Your task to perform on an android device: Open calendar and show me the fourth week of next month Image 0: 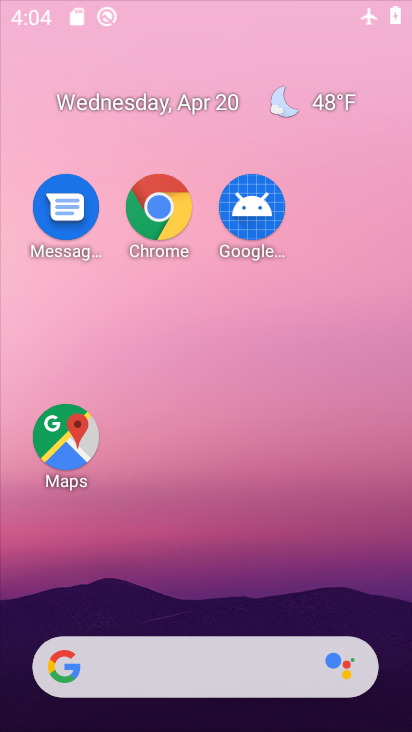
Step 0: drag from (240, 714) to (252, 340)
Your task to perform on an android device: Open calendar and show me the fourth week of next month Image 1: 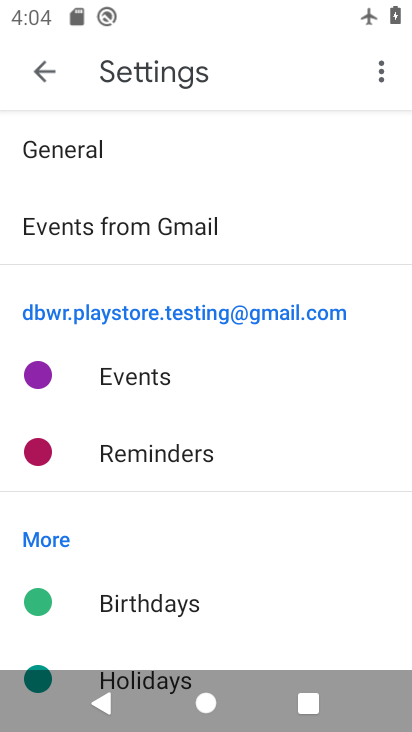
Step 1: press home button
Your task to perform on an android device: Open calendar and show me the fourth week of next month Image 2: 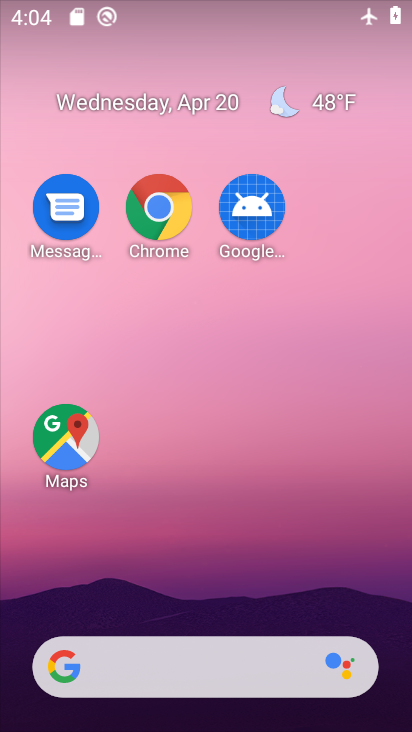
Step 2: drag from (269, 566) to (304, 178)
Your task to perform on an android device: Open calendar and show me the fourth week of next month Image 3: 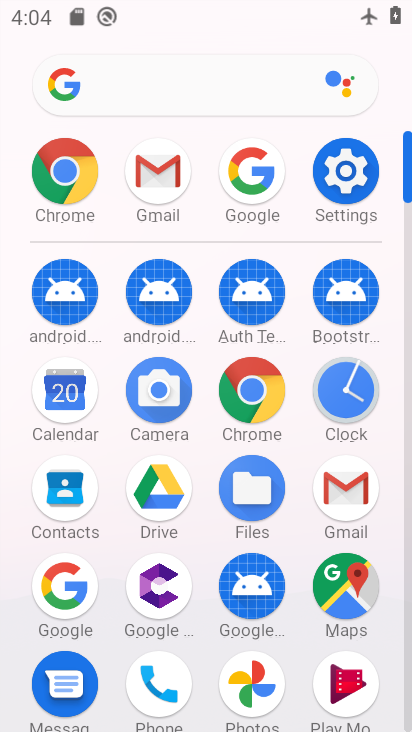
Step 3: click (86, 396)
Your task to perform on an android device: Open calendar and show me the fourth week of next month Image 4: 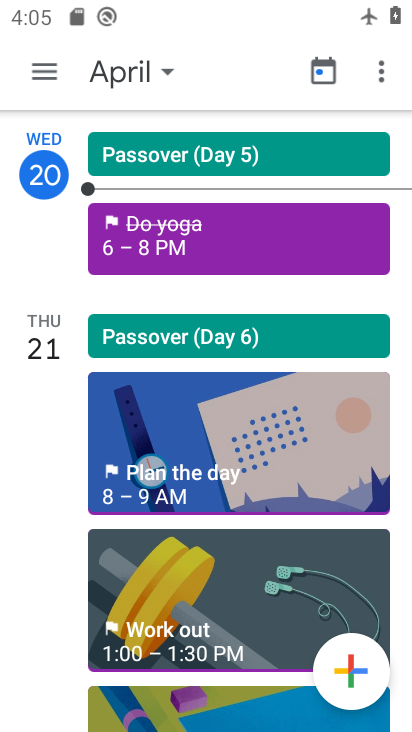
Step 4: click (152, 74)
Your task to perform on an android device: Open calendar and show me the fourth week of next month Image 5: 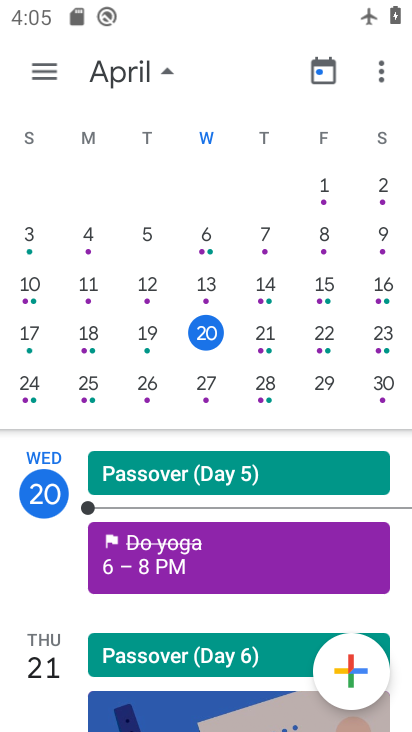
Step 5: drag from (350, 329) to (25, 236)
Your task to perform on an android device: Open calendar and show me the fourth week of next month Image 6: 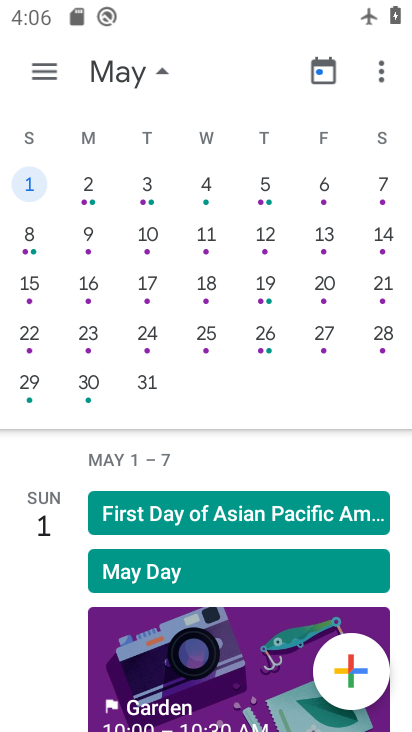
Step 6: click (32, 330)
Your task to perform on an android device: Open calendar and show me the fourth week of next month Image 7: 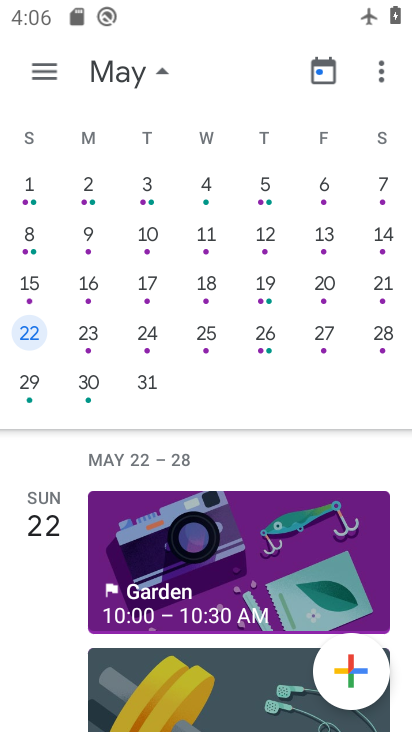
Step 7: task complete